Your task to perform on an android device: Open the Play Movies app and select the watchlist tab. Image 0: 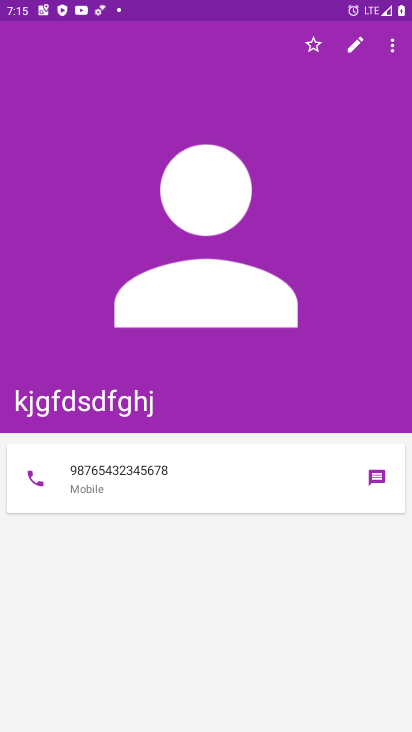
Step 0: press home button
Your task to perform on an android device: Open the Play Movies app and select the watchlist tab. Image 1: 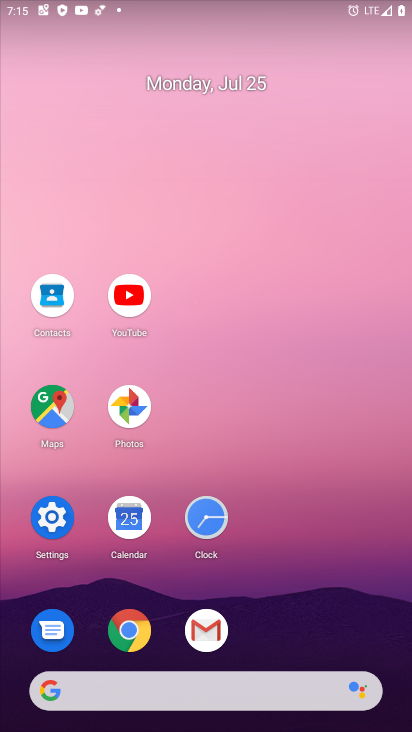
Step 1: drag from (298, 615) to (246, 16)
Your task to perform on an android device: Open the Play Movies app and select the watchlist tab. Image 2: 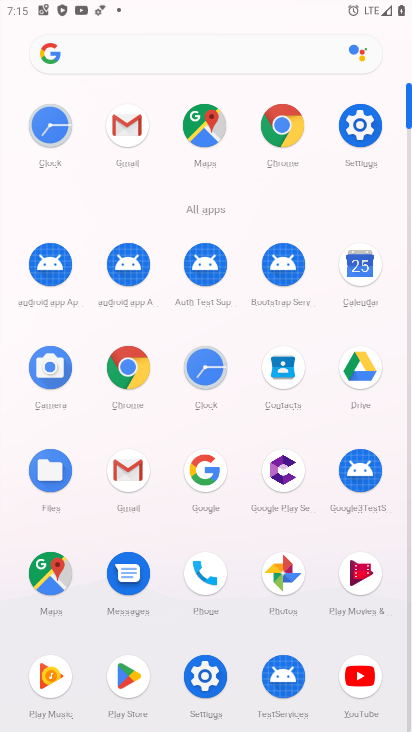
Step 2: click (348, 585)
Your task to perform on an android device: Open the Play Movies app and select the watchlist tab. Image 3: 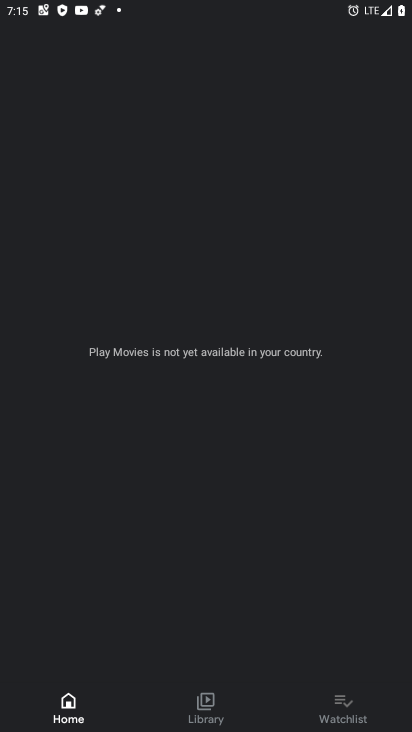
Step 3: click (338, 702)
Your task to perform on an android device: Open the Play Movies app and select the watchlist tab. Image 4: 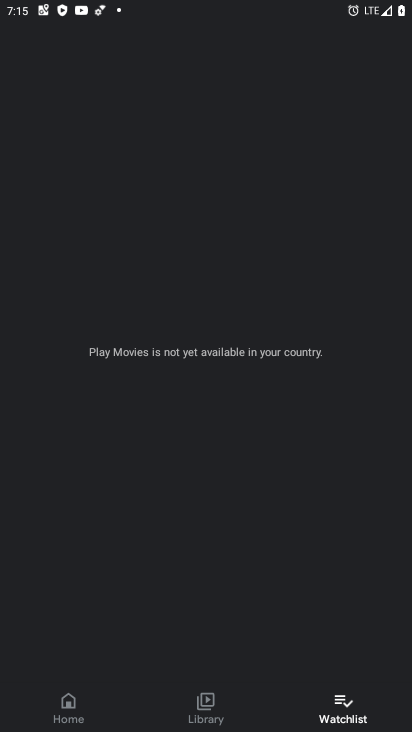
Step 4: task complete